Your task to perform on an android device: open chrome and create a bookmark for the current page Image 0: 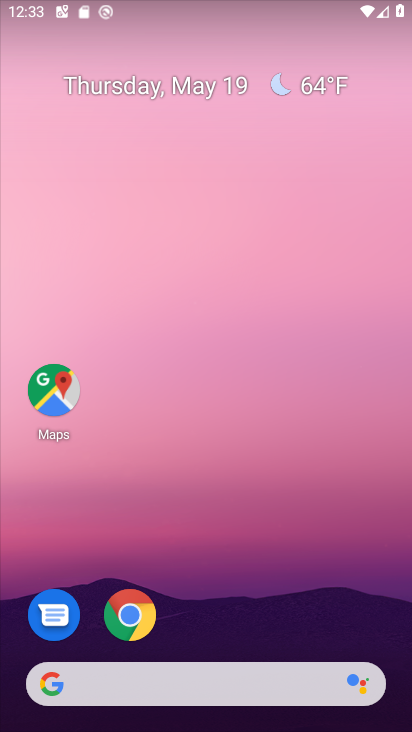
Step 0: drag from (189, 708) to (353, 83)
Your task to perform on an android device: open chrome and create a bookmark for the current page Image 1: 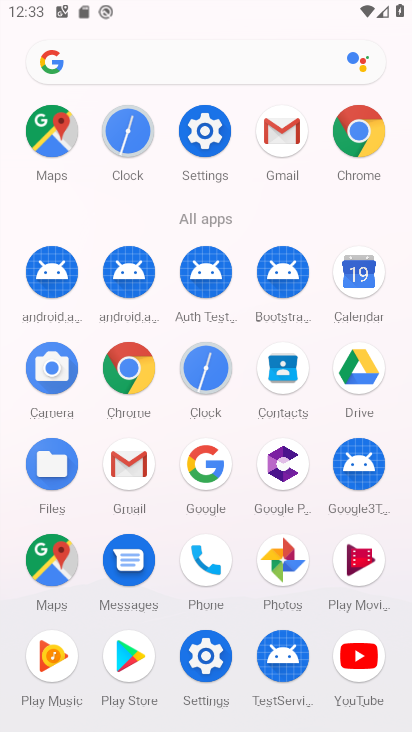
Step 1: click (359, 109)
Your task to perform on an android device: open chrome and create a bookmark for the current page Image 2: 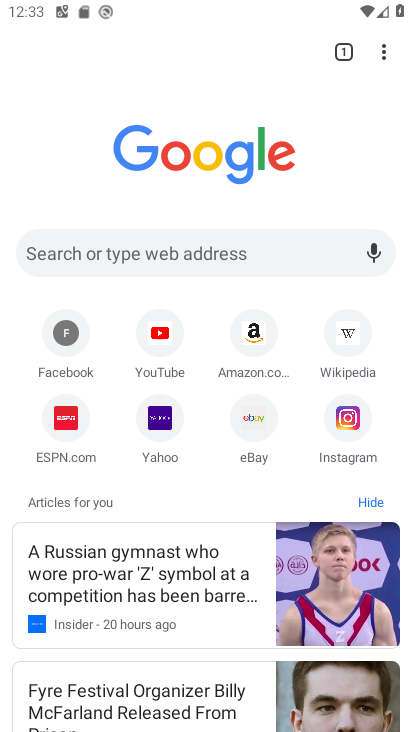
Step 2: click (387, 68)
Your task to perform on an android device: open chrome and create a bookmark for the current page Image 3: 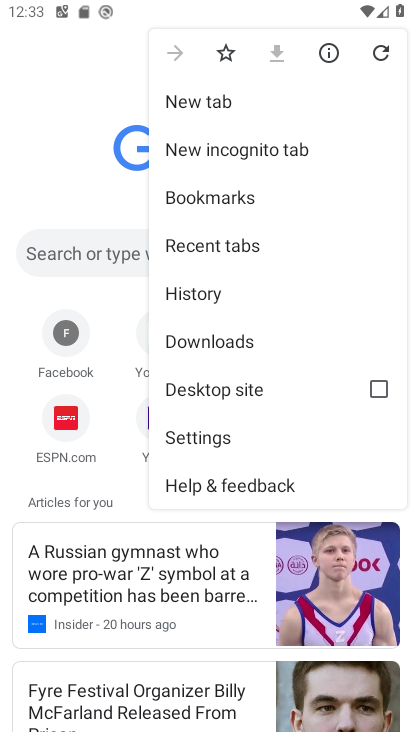
Step 3: click (234, 208)
Your task to perform on an android device: open chrome and create a bookmark for the current page Image 4: 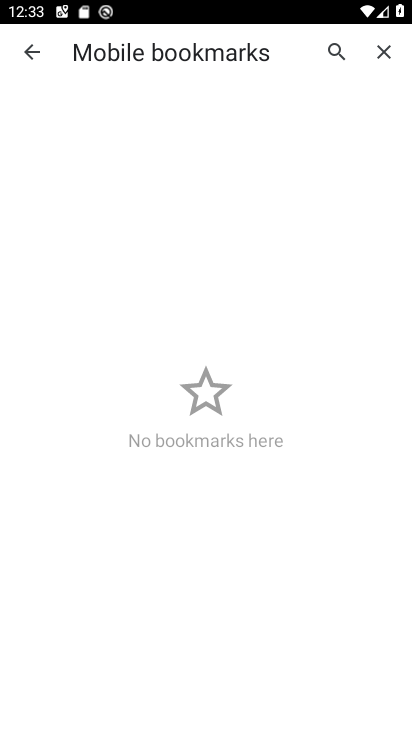
Step 4: task complete